Your task to perform on an android device: Open the map Image 0: 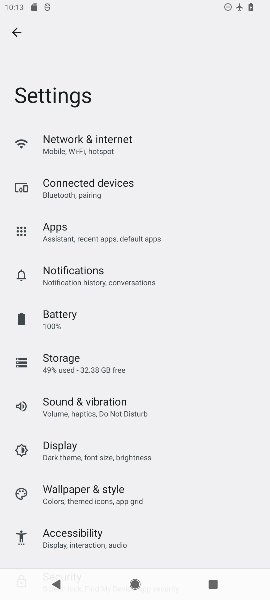
Step 0: press home button
Your task to perform on an android device: Open the map Image 1: 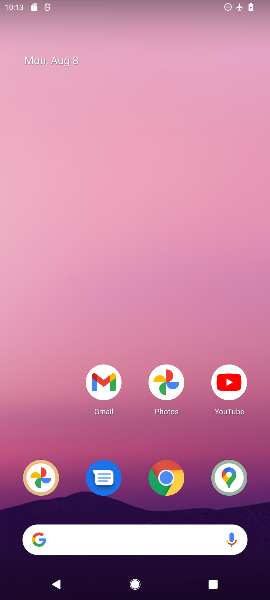
Step 1: drag from (143, 510) to (131, 96)
Your task to perform on an android device: Open the map Image 2: 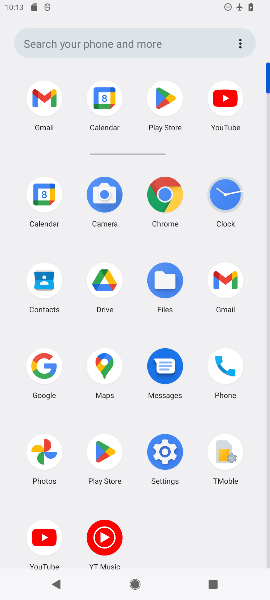
Step 2: click (102, 364)
Your task to perform on an android device: Open the map Image 3: 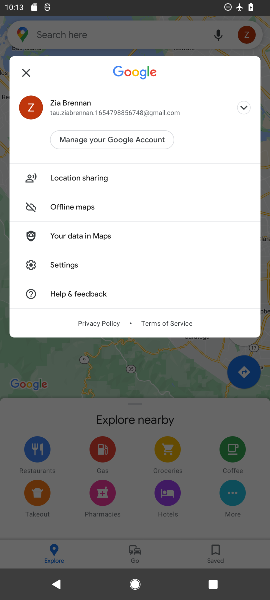
Step 3: click (136, 385)
Your task to perform on an android device: Open the map Image 4: 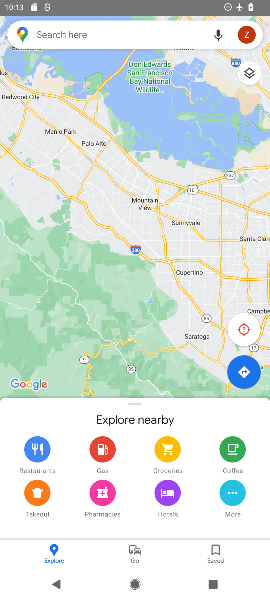
Step 4: task complete